Your task to perform on an android device: Go to Reddit.com Image 0: 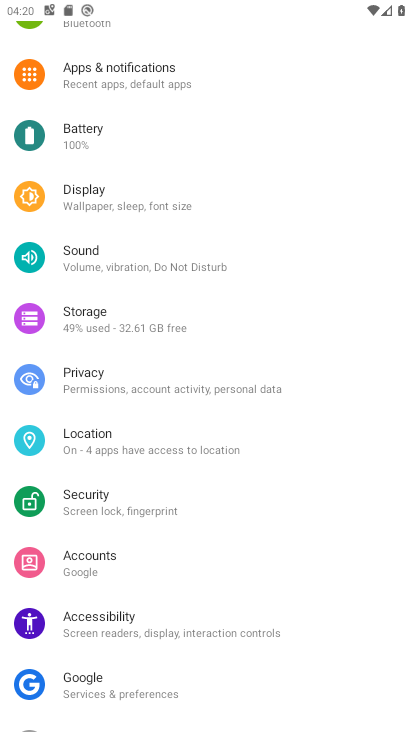
Step 0: press home button
Your task to perform on an android device: Go to Reddit.com Image 1: 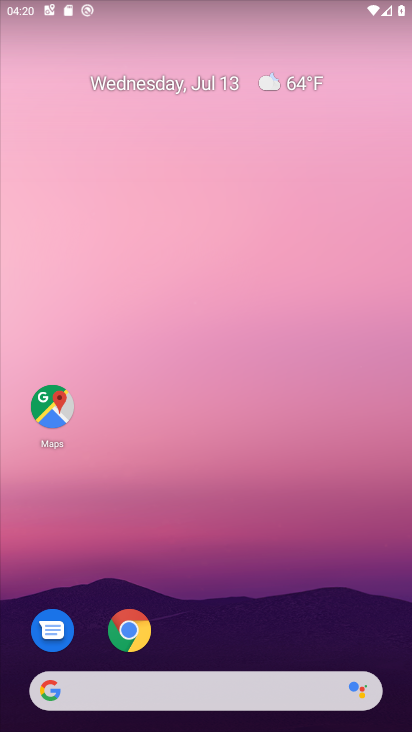
Step 1: click (138, 682)
Your task to perform on an android device: Go to Reddit.com Image 2: 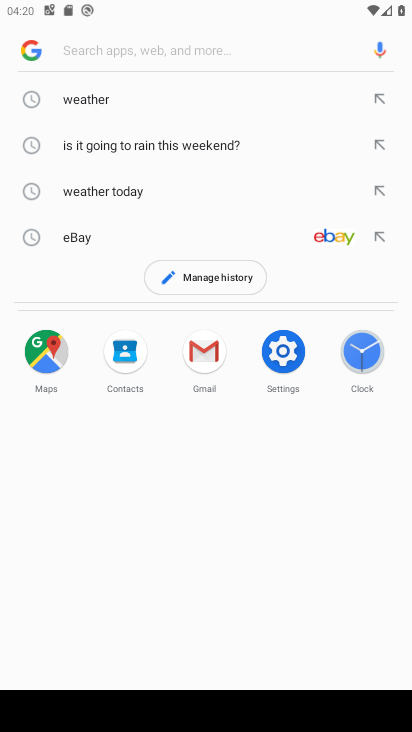
Step 2: type "reddit"
Your task to perform on an android device: Go to Reddit.com Image 3: 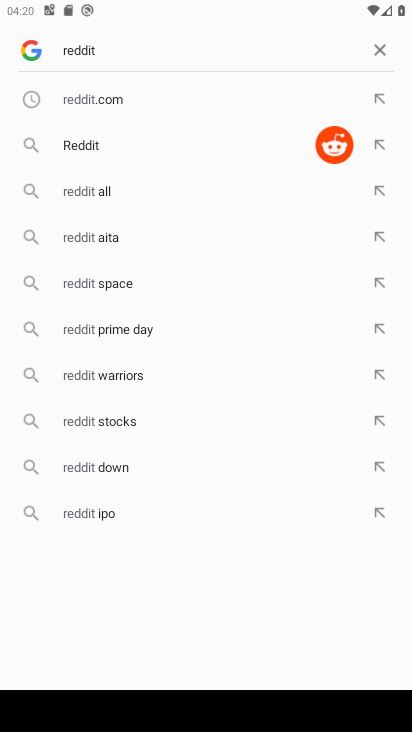
Step 3: click (76, 142)
Your task to perform on an android device: Go to Reddit.com Image 4: 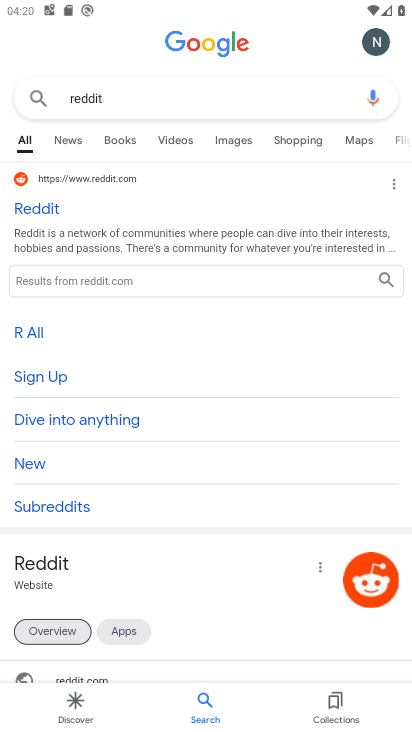
Step 4: click (45, 216)
Your task to perform on an android device: Go to Reddit.com Image 5: 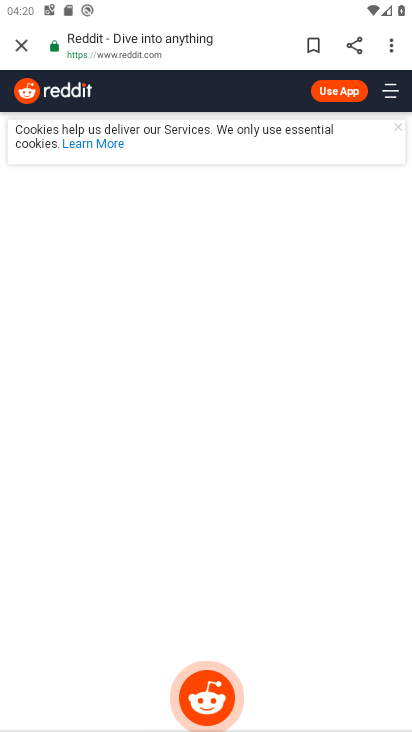
Step 5: task complete